Your task to perform on an android device: Open Google Chrome Image 0: 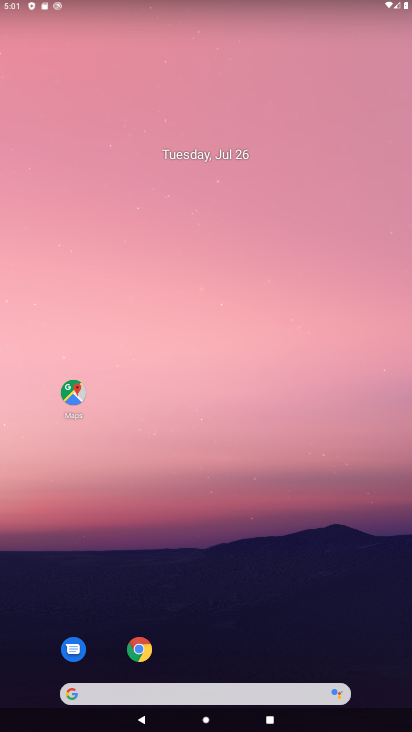
Step 0: click (148, 643)
Your task to perform on an android device: Open Google Chrome Image 1: 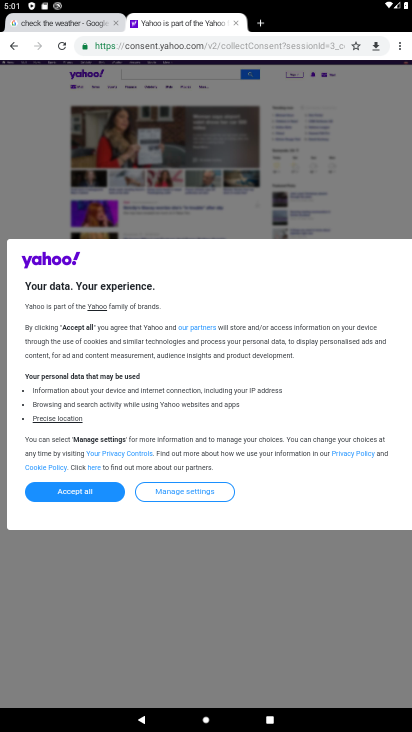
Step 1: task complete